Your task to perform on an android device: Show me popular games on the Play Store Image 0: 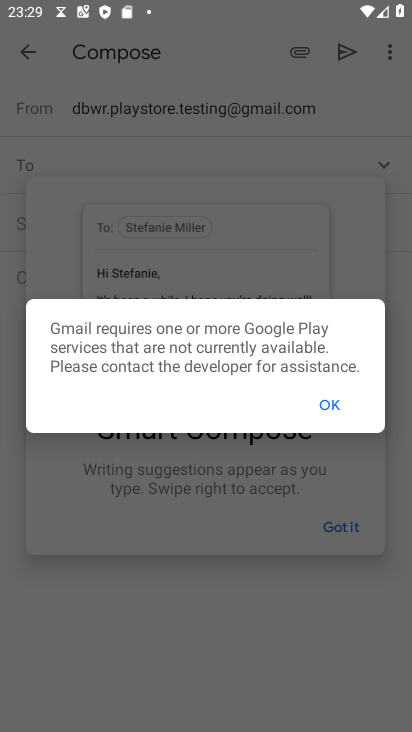
Step 0: press home button
Your task to perform on an android device: Show me popular games on the Play Store Image 1: 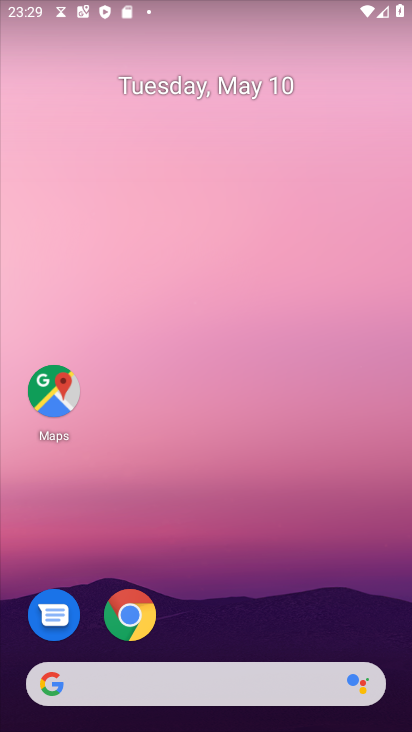
Step 1: drag from (264, 617) to (285, 24)
Your task to perform on an android device: Show me popular games on the Play Store Image 2: 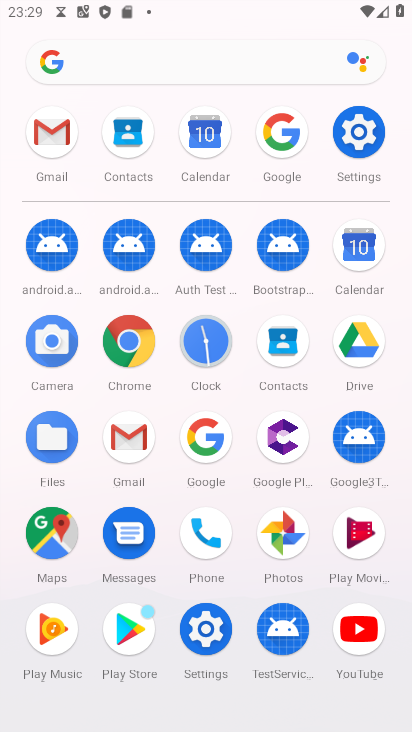
Step 2: click (132, 630)
Your task to perform on an android device: Show me popular games on the Play Store Image 3: 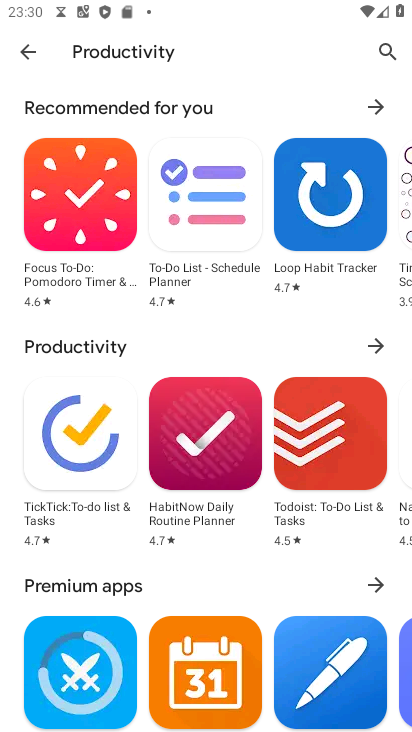
Step 3: press back button
Your task to perform on an android device: Show me popular games on the Play Store Image 4: 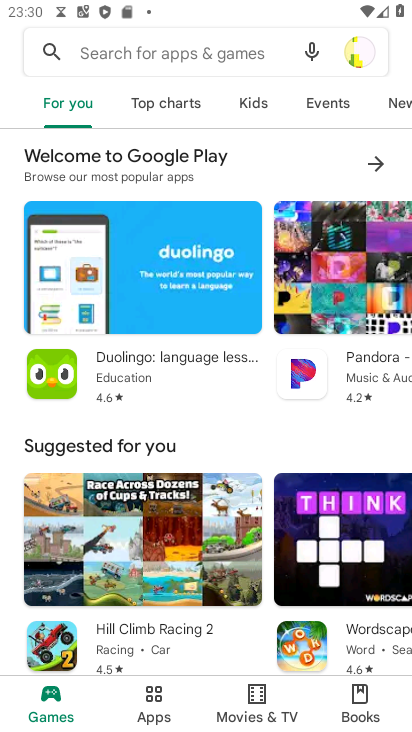
Step 4: click (244, 48)
Your task to perform on an android device: Show me popular games on the Play Store Image 5: 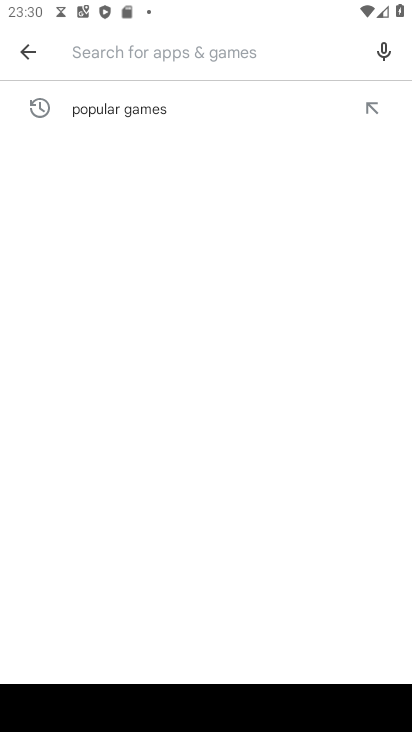
Step 5: click (126, 109)
Your task to perform on an android device: Show me popular games on the Play Store Image 6: 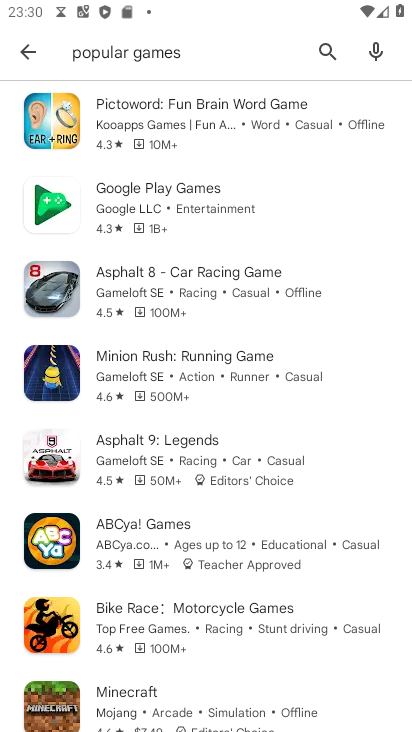
Step 6: task complete